Your task to perform on an android device: Open ESPN.com Image 0: 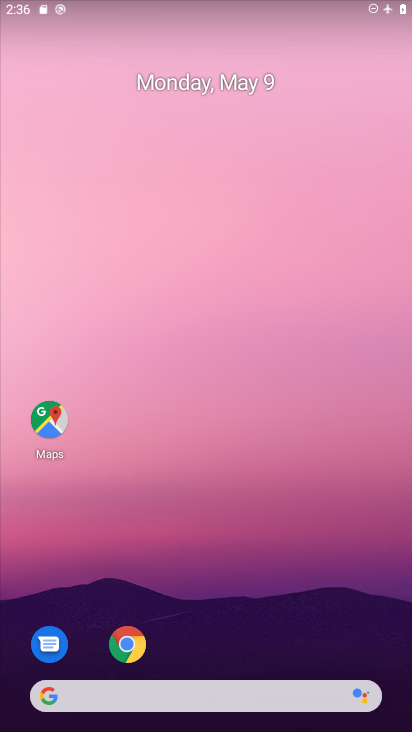
Step 0: click (117, 659)
Your task to perform on an android device: Open ESPN.com Image 1: 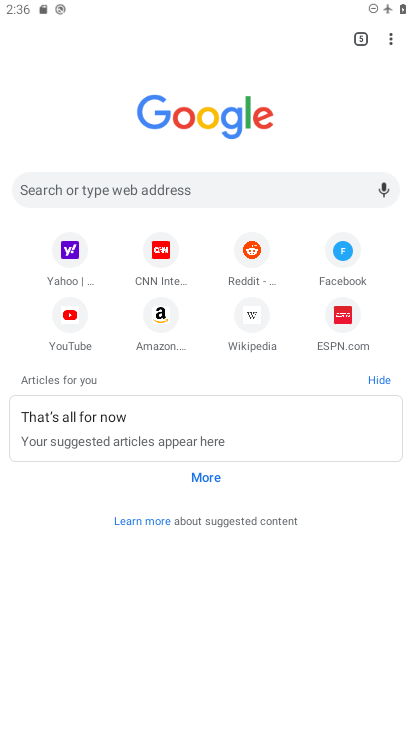
Step 1: click (95, 184)
Your task to perform on an android device: Open ESPN.com Image 2: 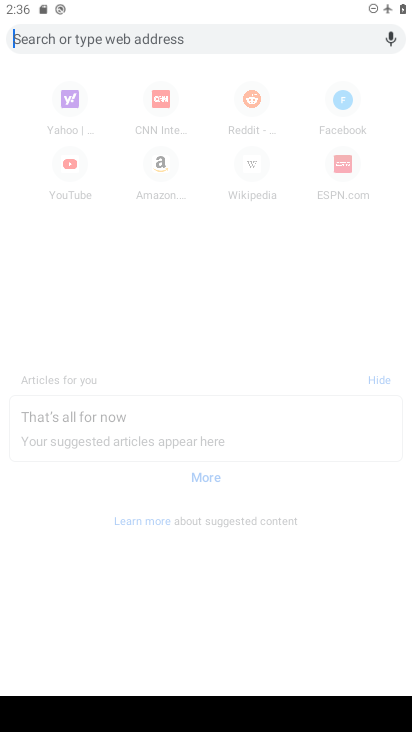
Step 2: press back button
Your task to perform on an android device: Open ESPN.com Image 3: 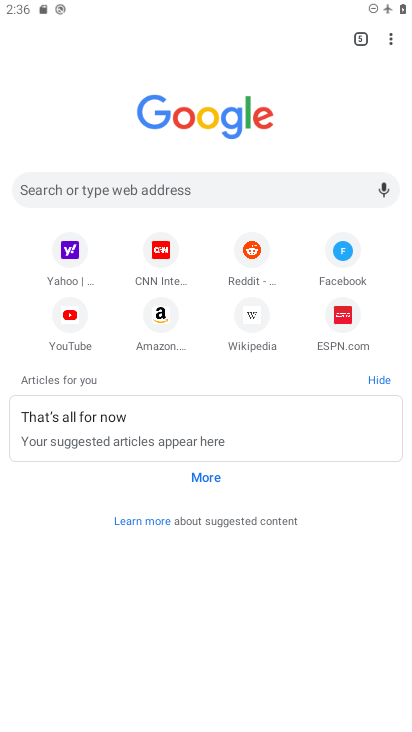
Step 3: click (351, 324)
Your task to perform on an android device: Open ESPN.com Image 4: 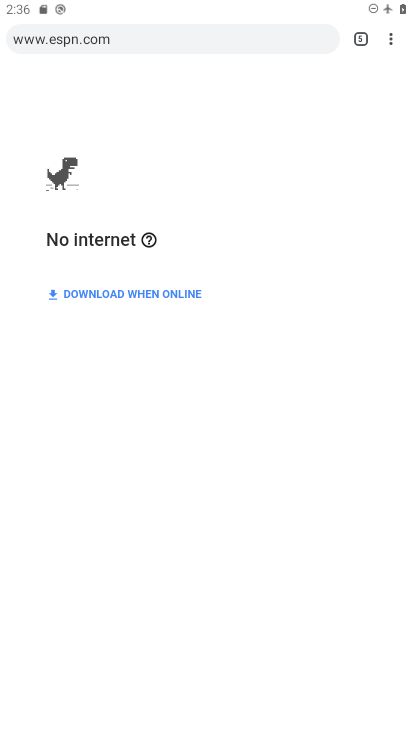
Step 4: task complete